Your task to perform on an android device: Go to battery settings Image 0: 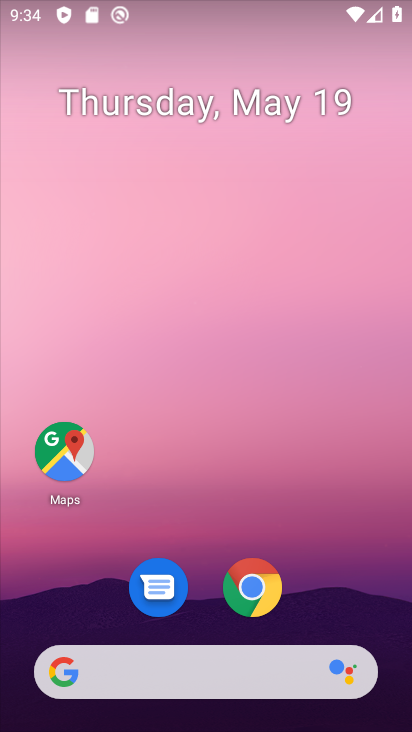
Step 0: drag from (203, 612) to (224, 97)
Your task to perform on an android device: Go to battery settings Image 1: 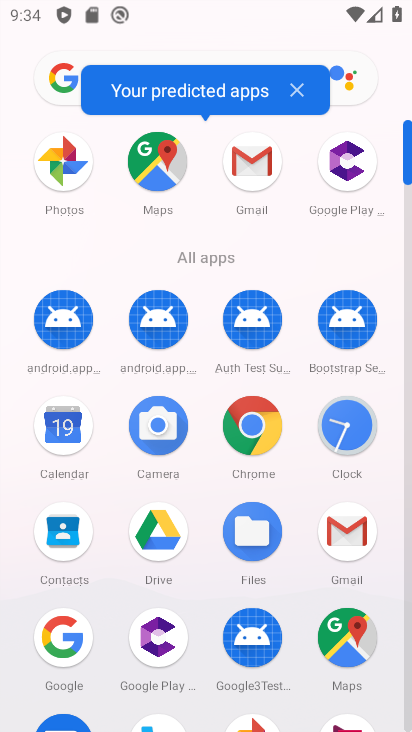
Step 1: drag from (113, 687) to (208, 148)
Your task to perform on an android device: Go to battery settings Image 2: 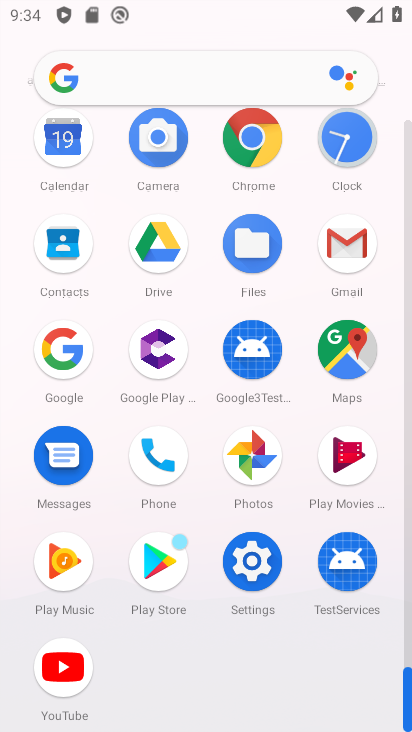
Step 2: click (246, 569)
Your task to perform on an android device: Go to battery settings Image 3: 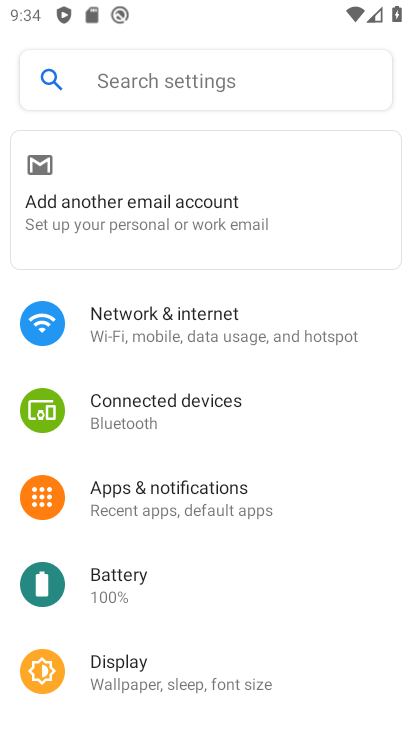
Step 3: click (148, 569)
Your task to perform on an android device: Go to battery settings Image 4: 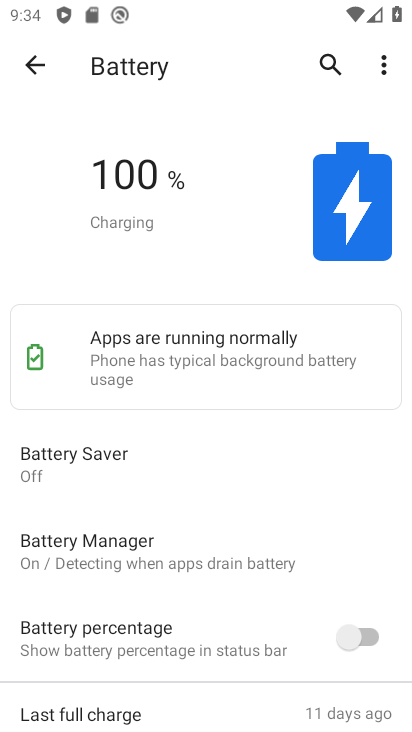
Step 4: task complete